Your task to perform on an android device: Search for sushi restaurants on Maps Image 0: 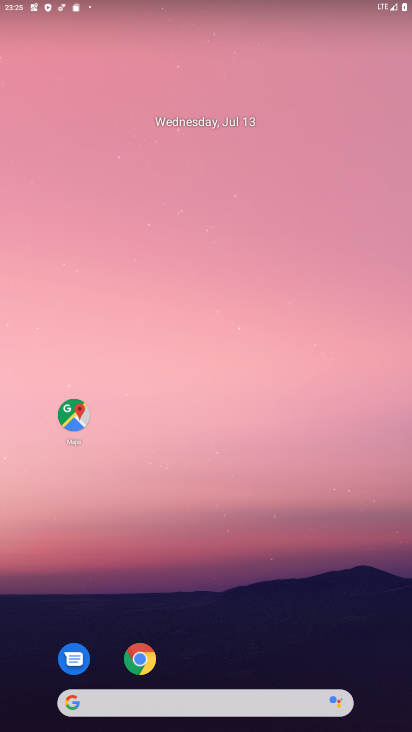
Step 0: click (72, 417)
Your task to perform on an android device: Search for sushi restaurants on Maps Image 1: 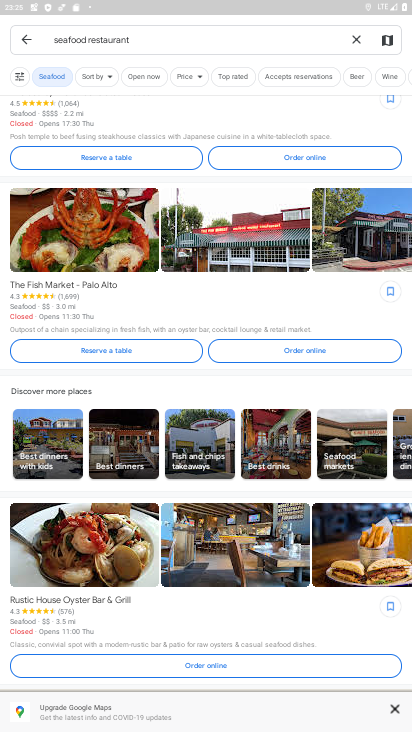
Step 1: click (356, 36)
Your task to perform on an android device: Search for sushi restaurants on Maps Image 2: 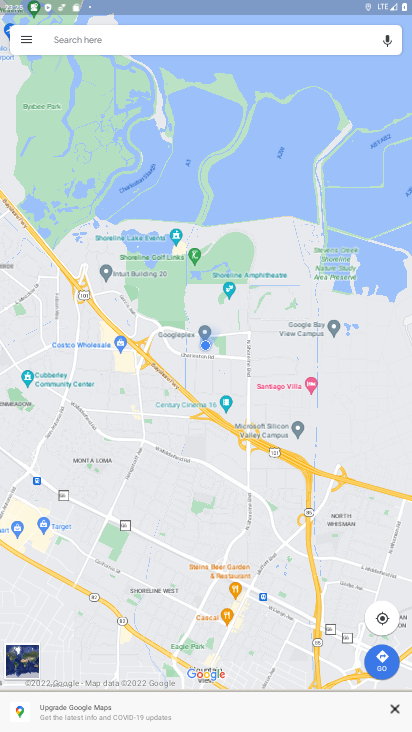
Step 2: click (104, 37)
Your task to perform on an android device: Search for sushi restaurants on Maps Image 3: 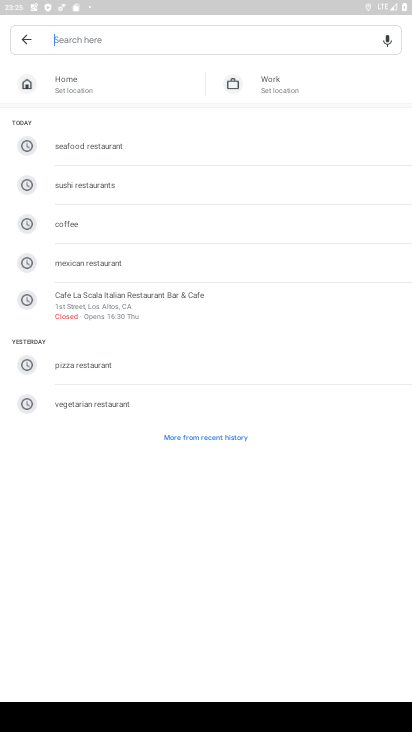
Step 3: type "sushi restaurants"
Your task to perform on an android device: Search for sushi restaurants on Maps Image 4: 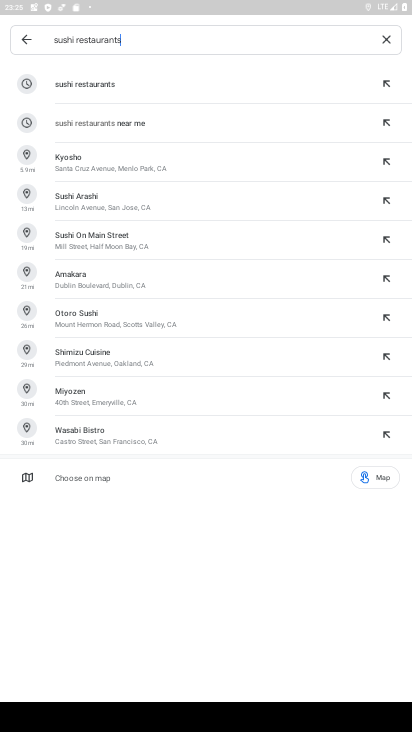
Step 4: click (109, 82)
Your task to perform on an android device: Search for sushi restaurants on Maps Image 5: 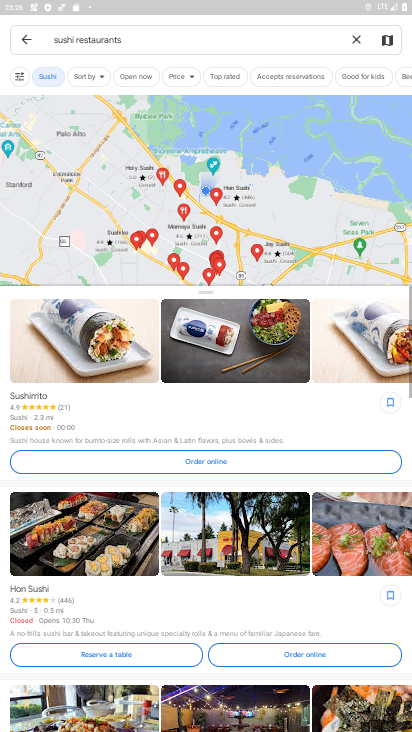
Step 5: task complete